Your task to perform on an android device: allow cookies in the chrome app Image 0: 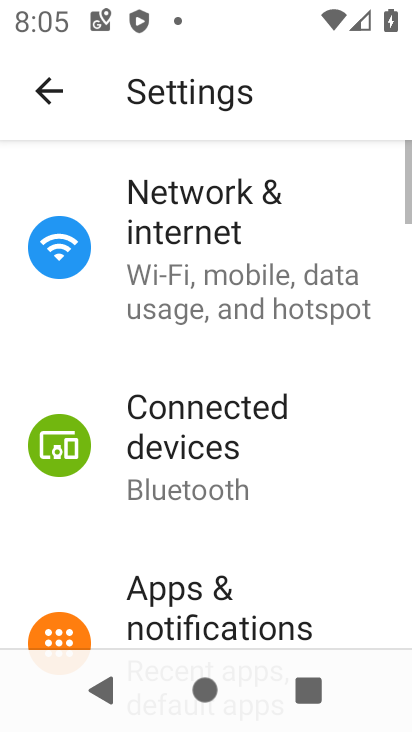
Step 0: press back button
Your task to perform on an android device: allow cookies in the chrome app Image 1: 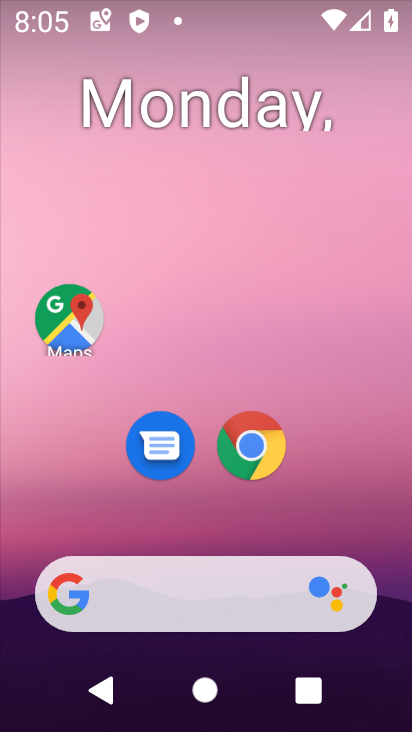
Step 1: click (255, 447)
Your task to perform on an android device: allow cookies in the chrome app Image 2: 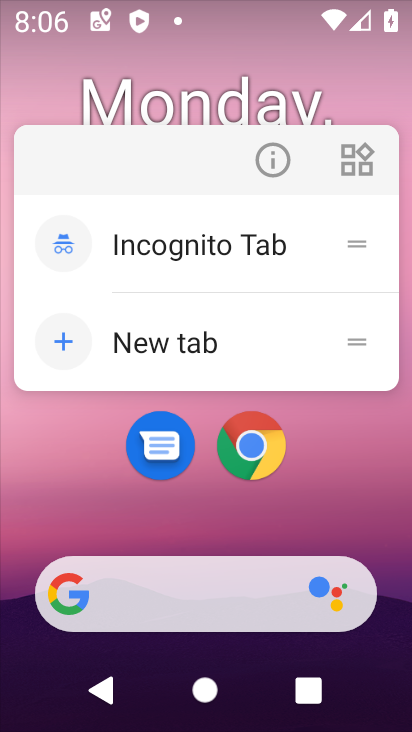
Step 2: click (255, 466)
Your task to perform on an android device: allow cookies in the chrome app Image 3: 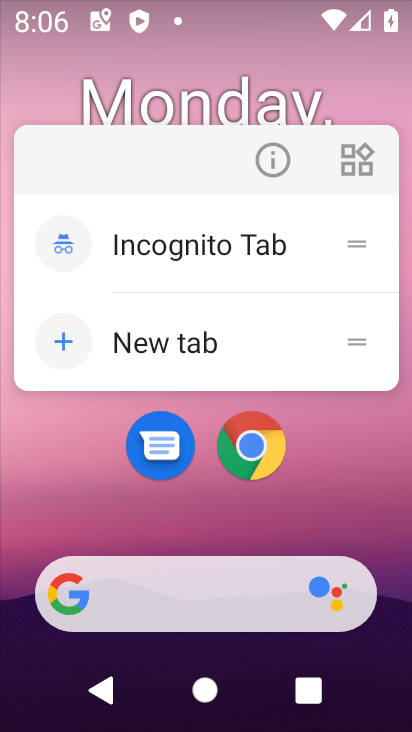
Step 3: click (256, 457)
Your task to perform on an android device: allow cookies in the chrome app Image 4: 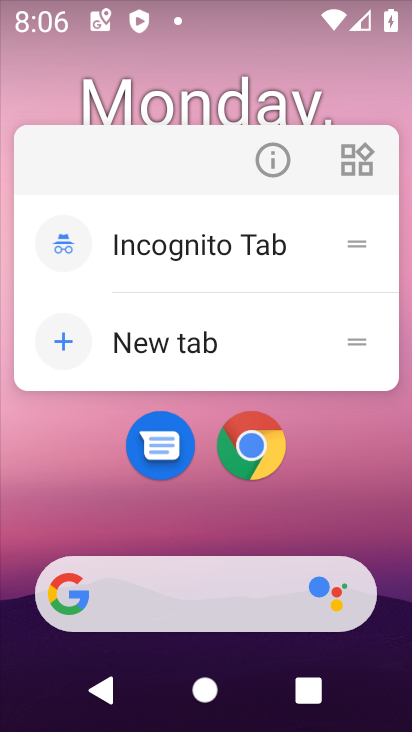
Step 4: click (256, 457)
Your task to perform on an android device: allow cookies in the chrome app Image 5: 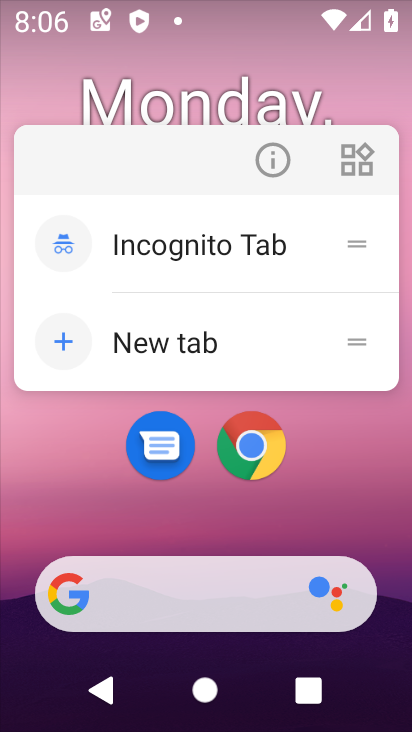
Step 5: click (260, 459)
Your task to perform on an android device: allow cookies in the chrome app Image 6: 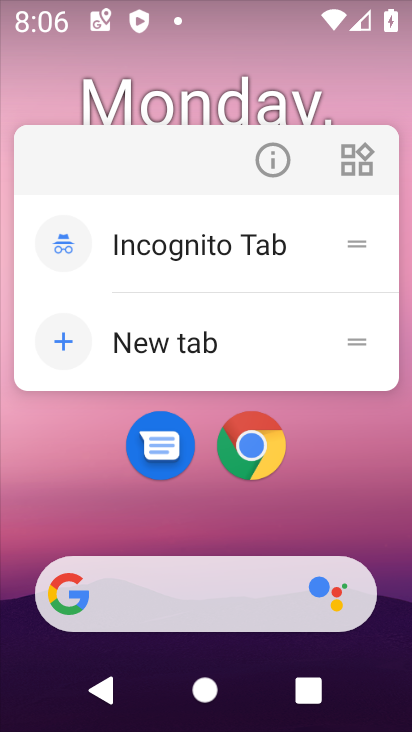
Step 6: click (266, 460)
Your task to perform on an android device: allow cookies in the chrome app Image 7: 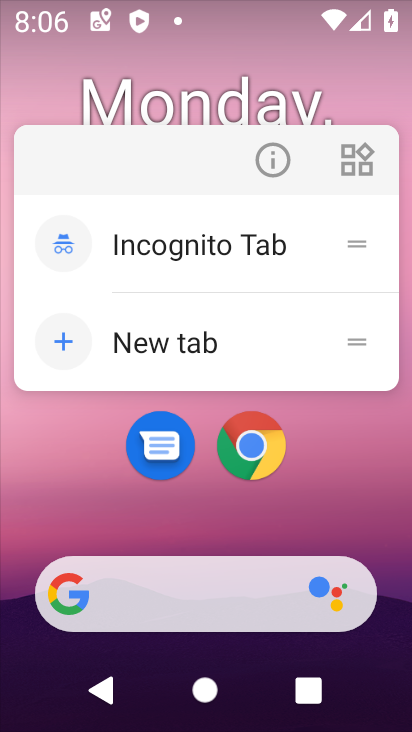
Step 7: click (265, 453)
Your task to perform on an android device: allow cookies in the chrome app Image 8: 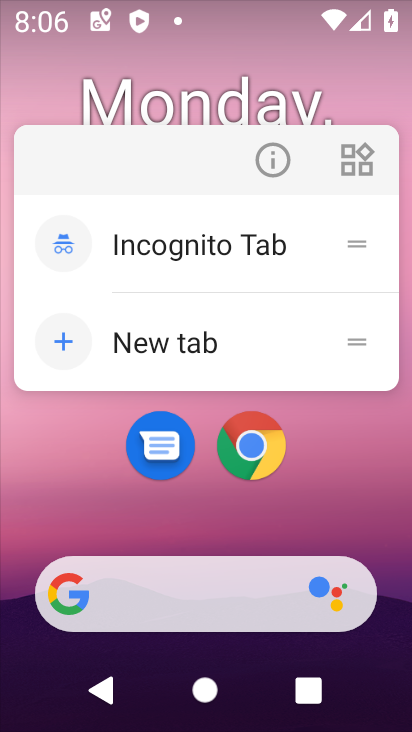
Step 8: click (265, 452)
Your task to perform on an android device: allow cookies in the chrome app Image 9: 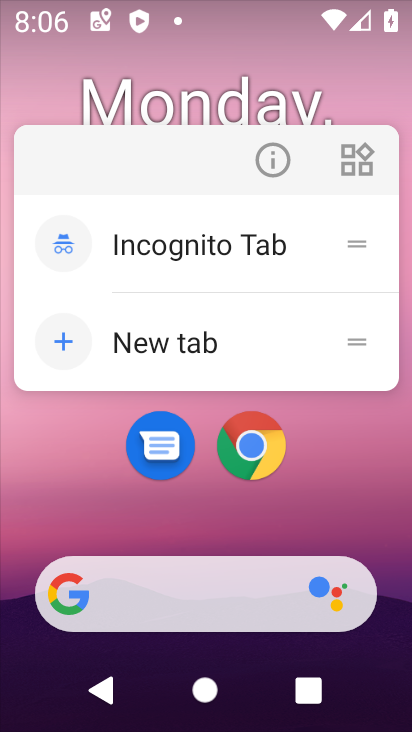
Step 9: click (257, 440)
Your task to perform on an android device: allow cookies in the chrome app Image 10: 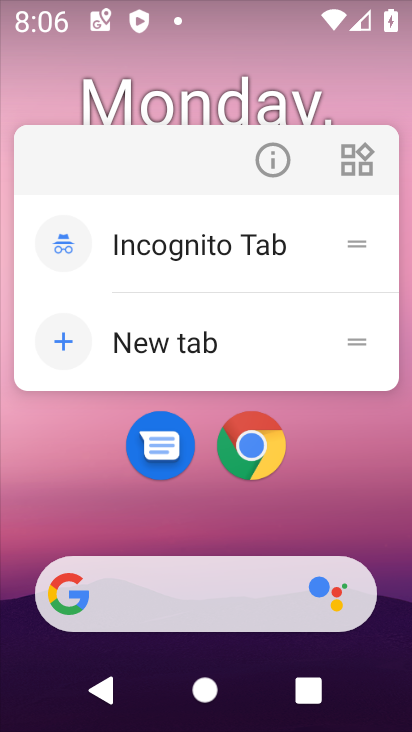
Step 10: click (265, 468)
Your task to perform on an android device: allow cookies in the chrome app Image 11: 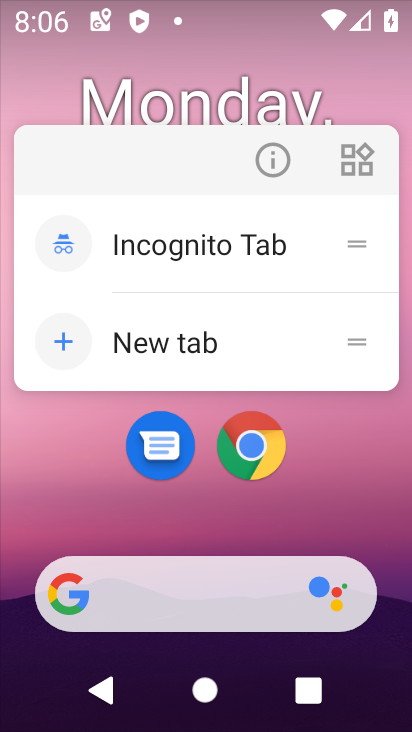
Step 11: click (288, 453)
Your task to perform on an android device: allow cookies in the chrome app Image 12: 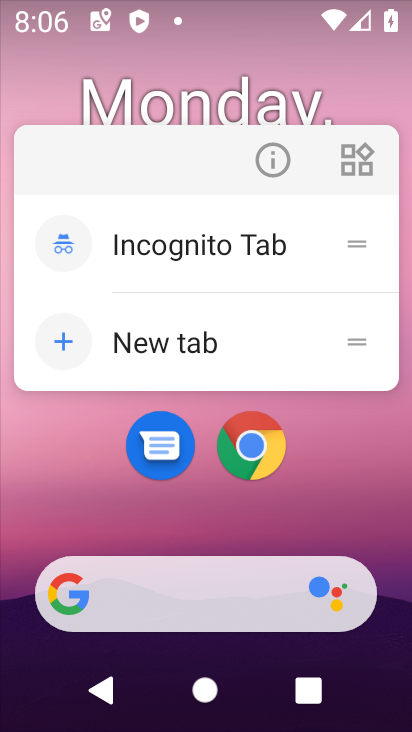
Step 12: click (273, 454)
Your task to perform on an android device: allow cookies in the chrome app Image 13: 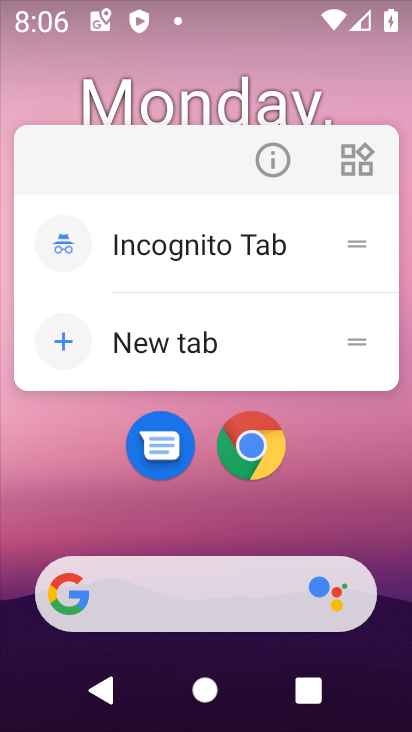
Step 13: click (267, 469)
Your task to perform on an android device: allow cookies in the chrome app Image 14: 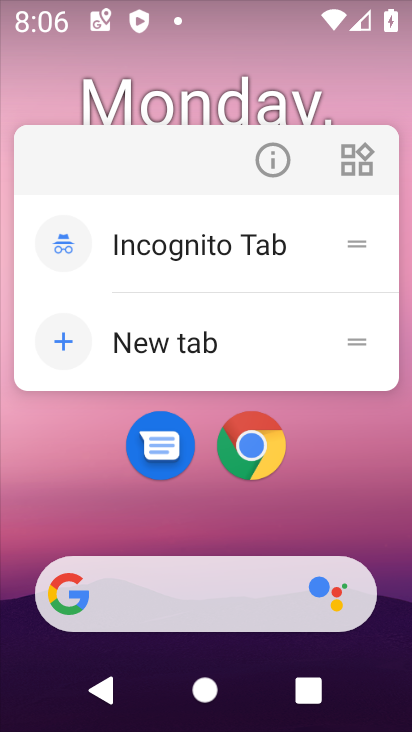
Step 14: click (269, 465)
Your task to perform on an android device: allow cookies in the chrome app Image 15: 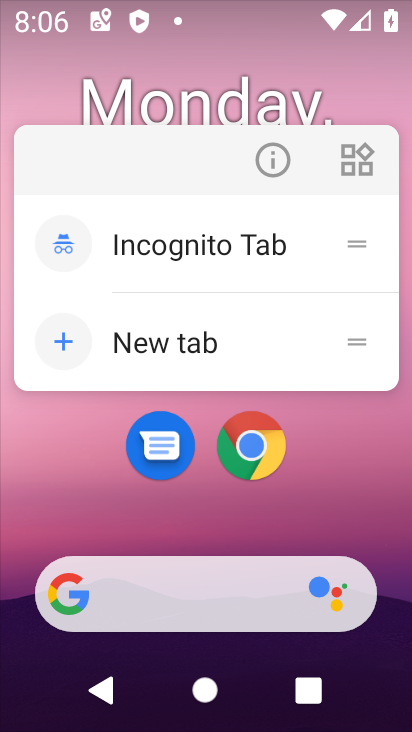
Step 15: click (276, 459)
Your task to perform on an android device: allow cookies in the chrome app Image 16: 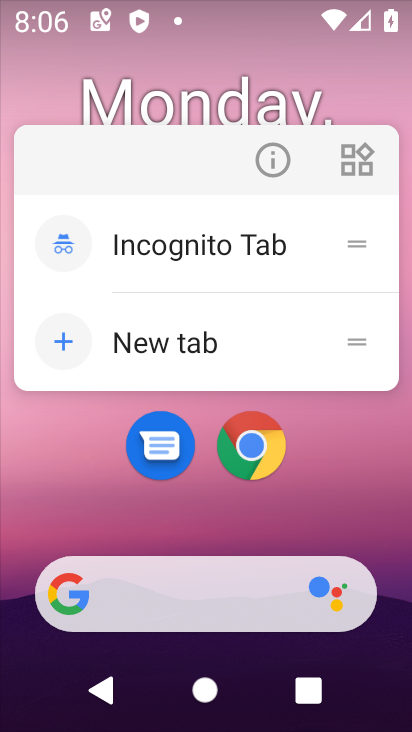
Step 16: click (263, 422)
Your task to perform on an android device: allow cookies in the chrome app Image 17: 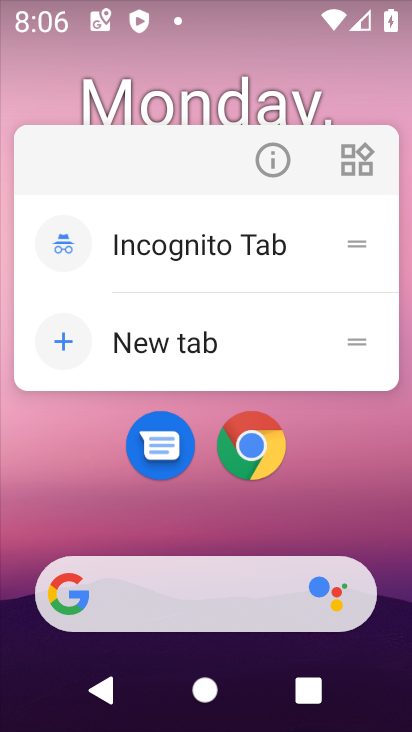
Step 17: click (244, 453)
Your task to perform on an android device: allow cookies in the chrome app Image 18: 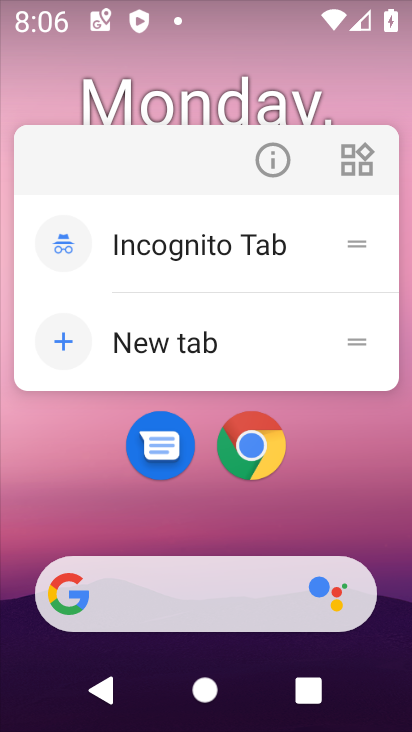
Step 18: click (223, 441)
Your task to perform on an android device: allow cookies in the chrome app Image 19: 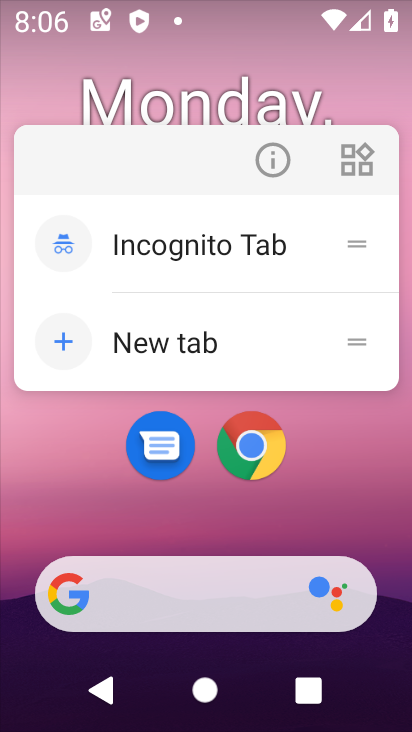
Step 19: click (252, 465)
Your task to perform on an android device: allow cookies in the chrome app Image 20: 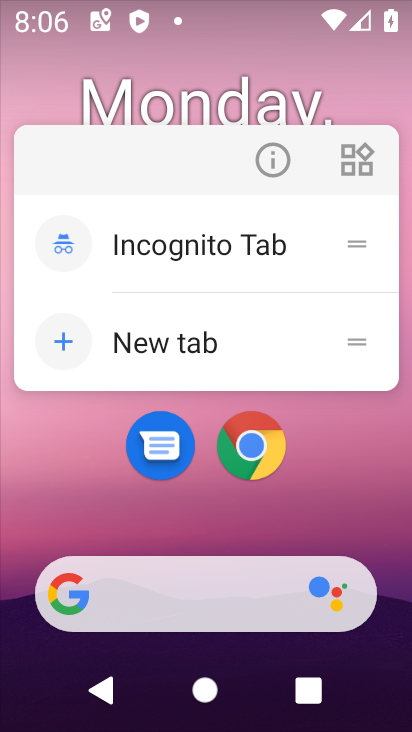
Step 20: click (263, 447)
Your task to perform on an android device: allow cookies in the chrome app Image 21: 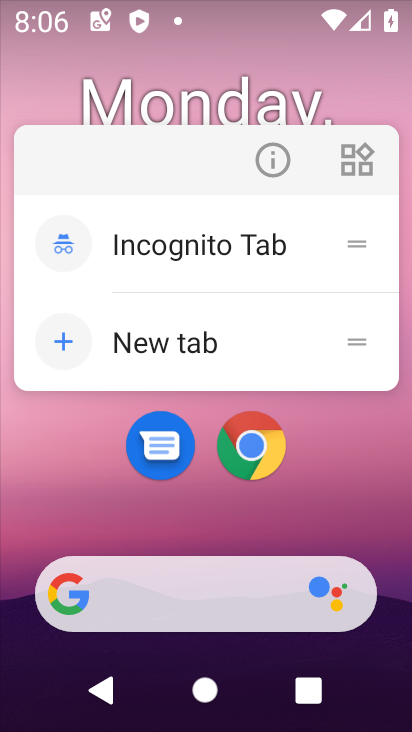
Step 21: click (251, 446)
Your task to perform on an android device: allow cookies in the chrome app Image 22: 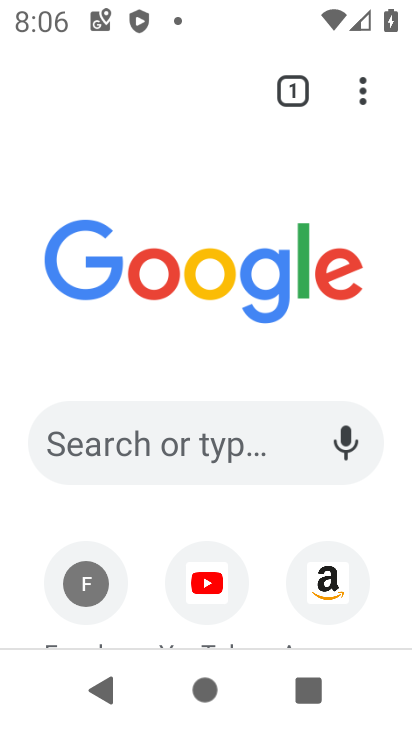
Step 22: click (367, 99)
Your task to perform on an android device: allow cookies in the chrome app Image 23: 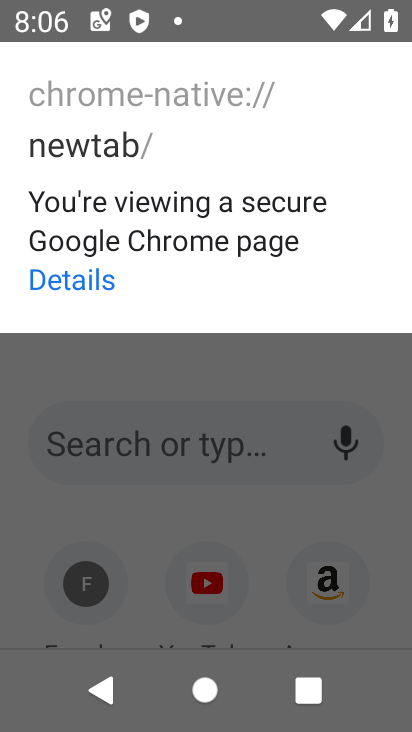
Step 23: press back button
Your task to perform on an android device: allow cookies in the chrome app Image 24: 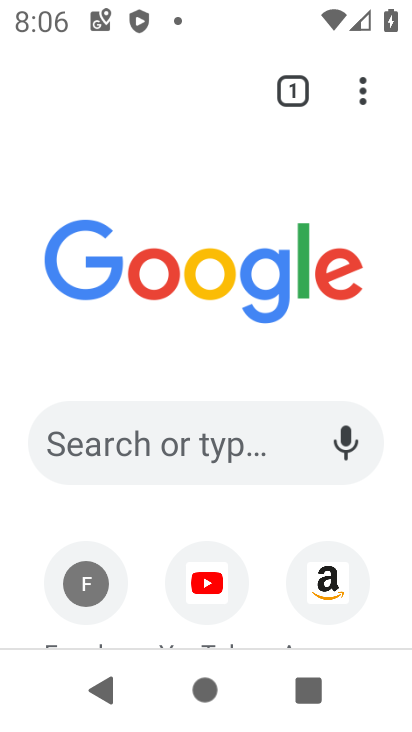
Step 24: drag from (365, 93) to (269, 481)
Your task to perform on an android device: allow cookies in the chrome app Image 25: 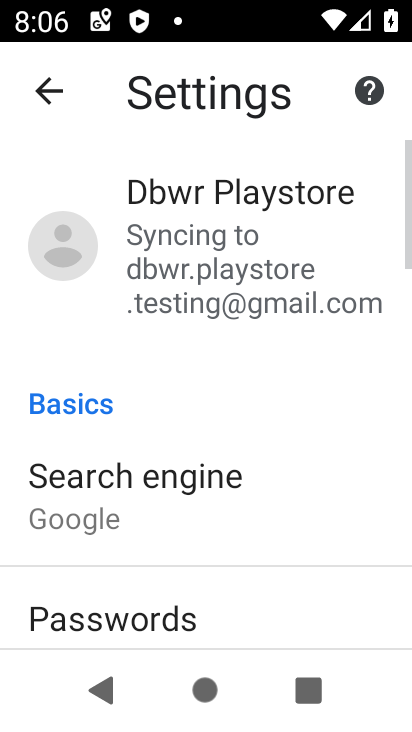
Step 25: drag from (200, 589) to (304, 246)
Your task to perform on an android device: allow cookies in the chrome app Image 26: 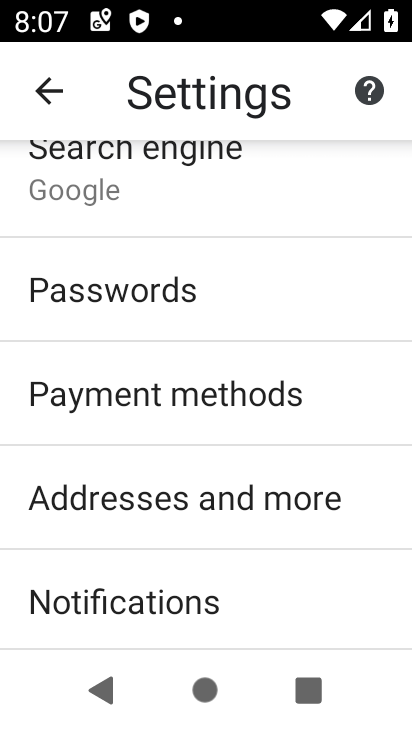
Step 26: drag from (244, 581) to (314, 267)
Your task to perform on an android device: allow cookies in the chrome app Image 27: 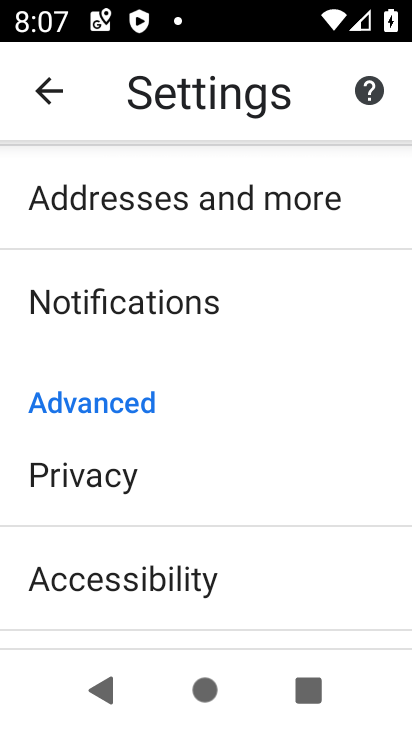
Step 27: drag from (279, 549) to (344, 290)
Your task to perform on an android device: allow cookies in the chrome app Image 28: 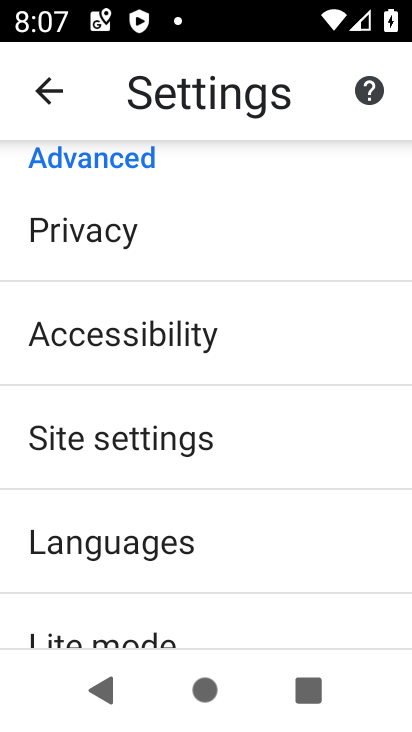
Step 28: click (215, 449)
Your task to perform on an android device: allow cookies in the chrome app Image 29: 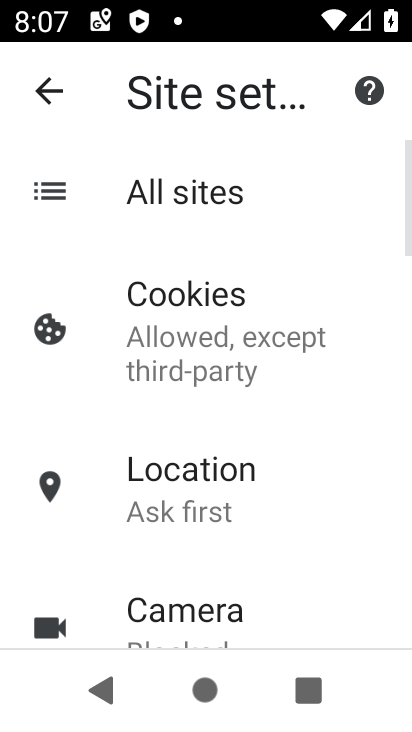
Step 29: click (254, 358)
Your task to perform on an android device: allow cookies in the chrome app Image 30: 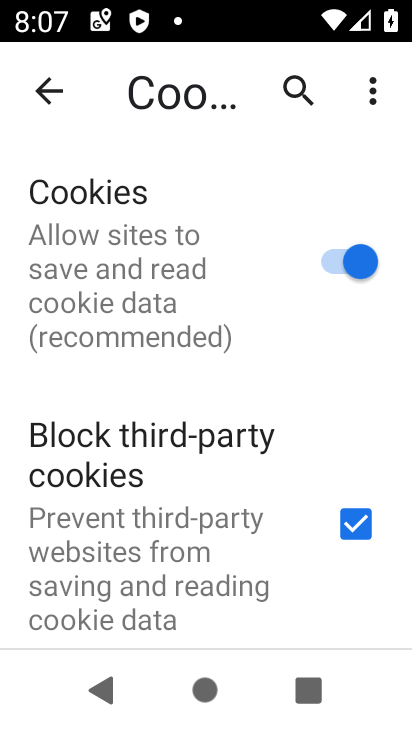
Step 30: task complete